Your task to perform on an android device: Open Android settings Image 0: 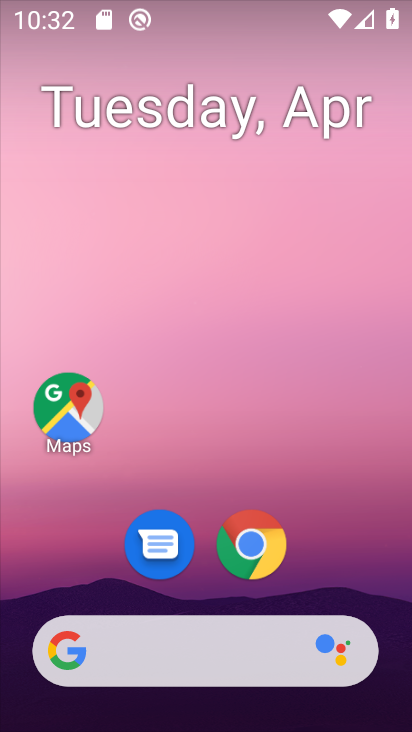
Step 0: drag from (334, 565) to (350, 140)
Your task to perform on an android device: Open Android settings Image 1: 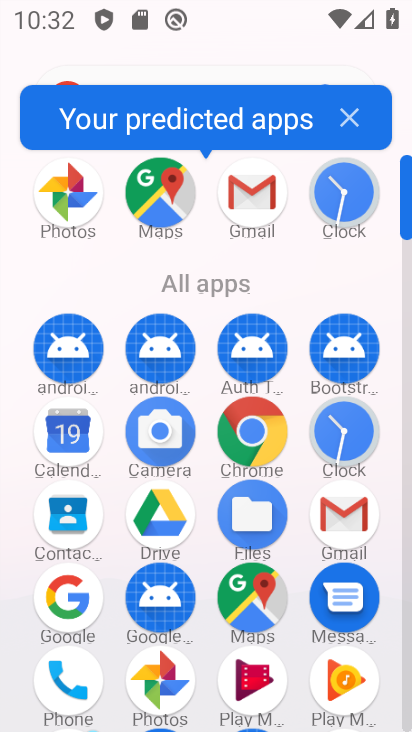
Step 1: drag from (295, 640) to (326, 251)
Your task to perform on an android device: Open Android settings Image 2: 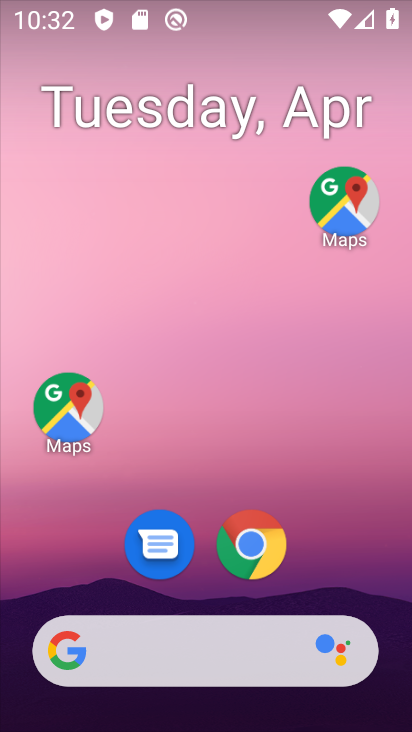
Step 2: drag from (316, 419) to (316, 143)
Your task to perform on an android device: Open Android settings Image 3: 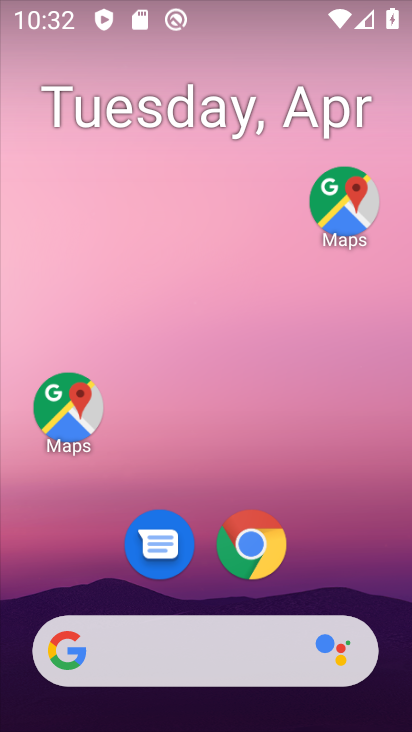
Step 3: drag from (302, 583) to (294, 145)
Your task to perform on an android device: Open Android settings Image 4: 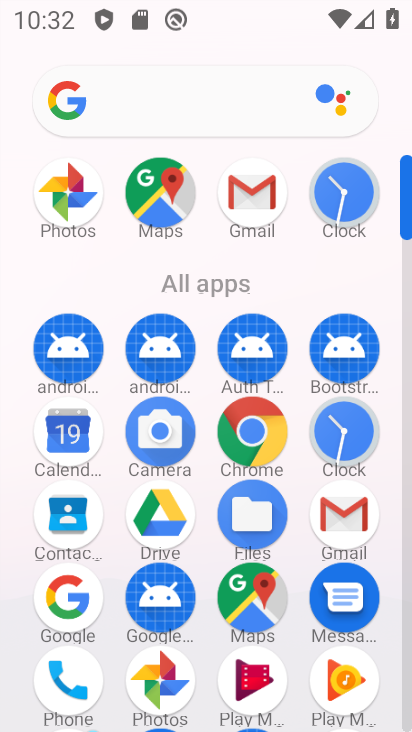
Step 4: drag from (308, 531) to (314, 179)
Your task to perform on an android device: Open Android settings Image 5: 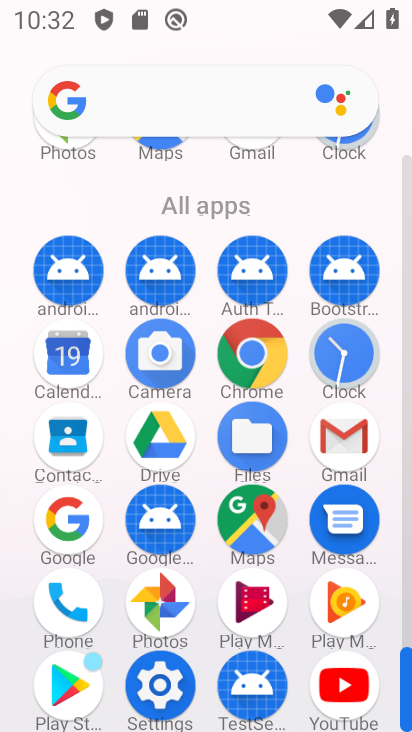
Step 5: click (161, 688)
Your task to perform on an android device: Open Android settings Image 6: 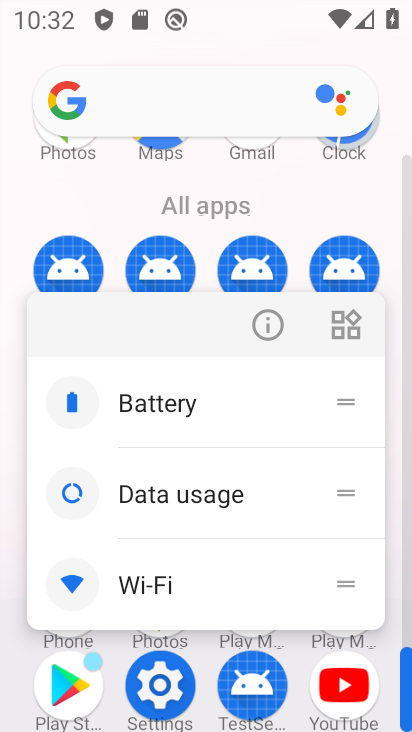
Step 6: click (165, 696)
Your task to perform on an android device: Open Android settings Image 7: 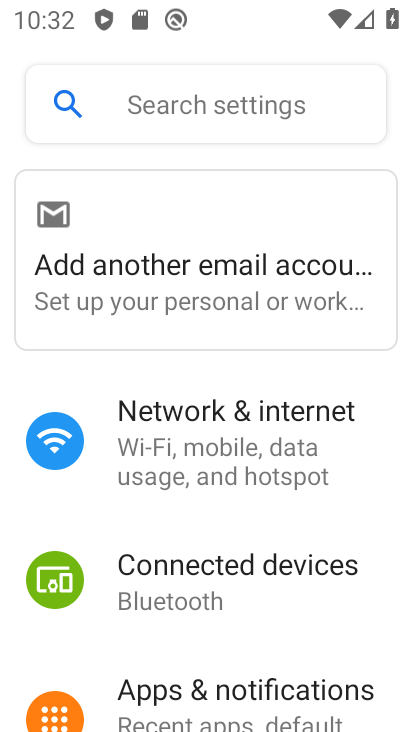
Step 7: drag from (266, 641) to (280, 250)
Your task to perform on an android device: Open Android settings Image 8: 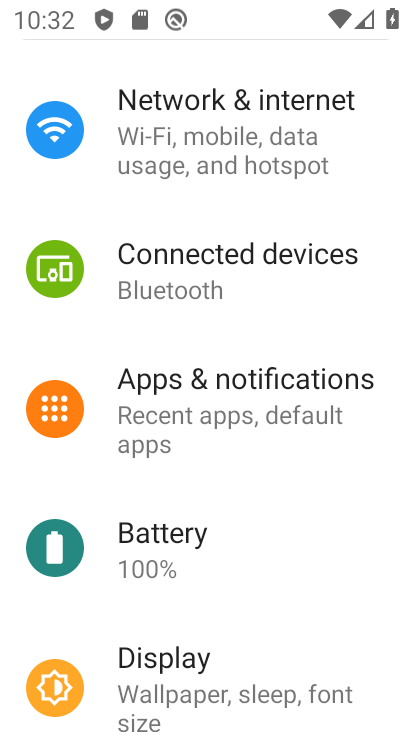
Step 8: drag from (261, 556) to (281, 216)
Your task to perform on an android device: Open Android settings Image 9: 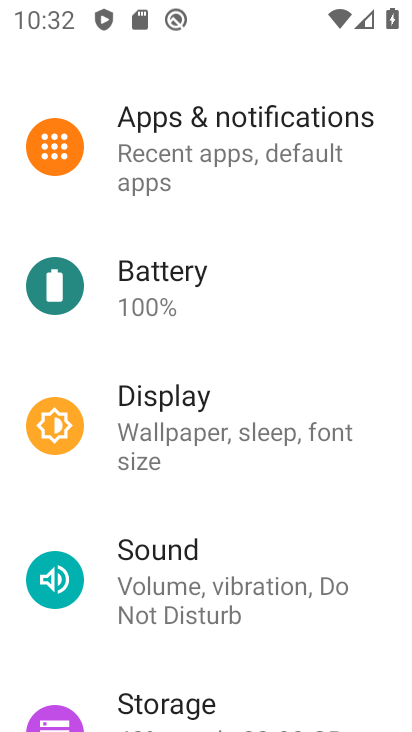
Step 9: drag from (243, 647) to (278, 218)
Your task to perform on an android device: Open Android settings Image 10: 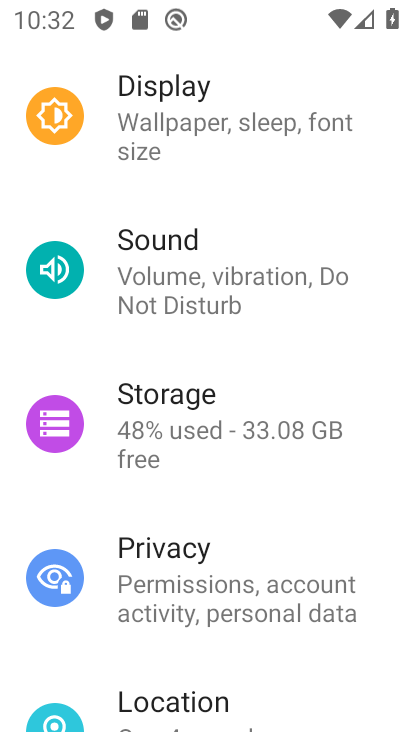
Step 10: drag from (274, 666) to (323, 210)
Your task to perform on an android device: Open Android settings Image 11: 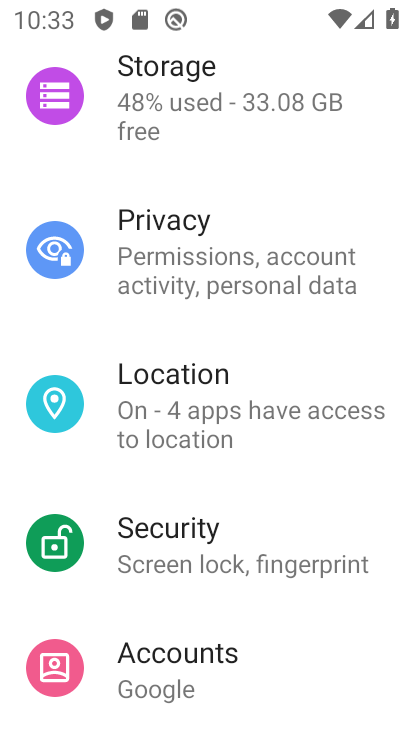
Step 11: drag from (312, 447) to (311, 172)
Your task to perform on an android device: Open Android settings Image 12: 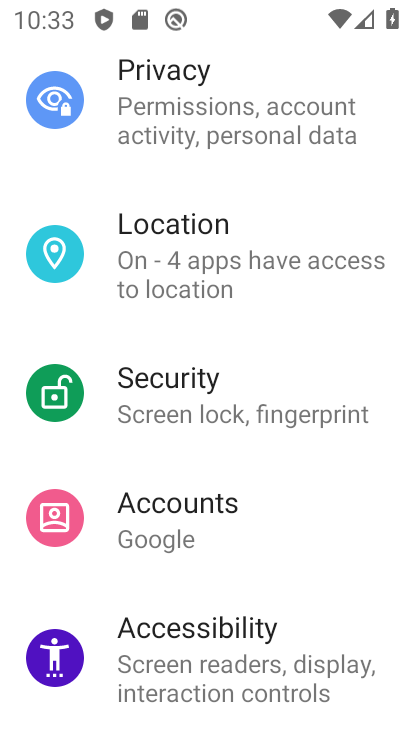
Step 12: drag from (194, 622) to (244, 212)
Your task to perform on an android device: Open Android settings Image 13: 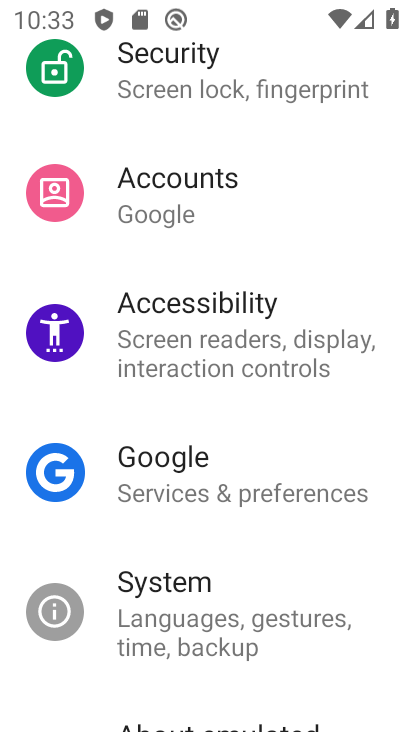
Step 13: drag from (340, 316) to (349, 254)
Your task to perform on an android device: Open Android settings Image 14: 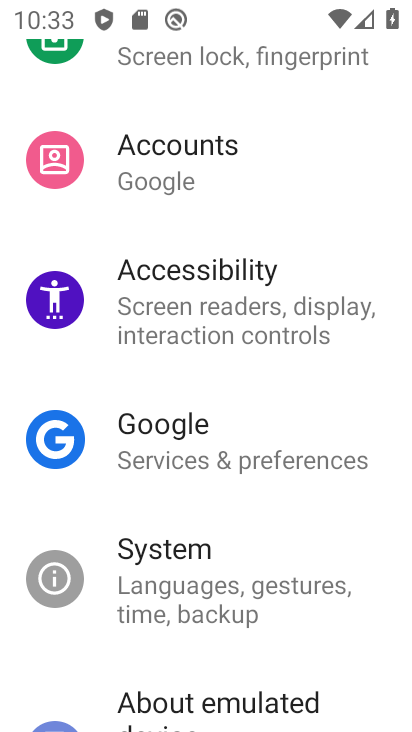
Step 14: click (264, 714)
Your task to perform on an android device: Open Android settings Image 15: 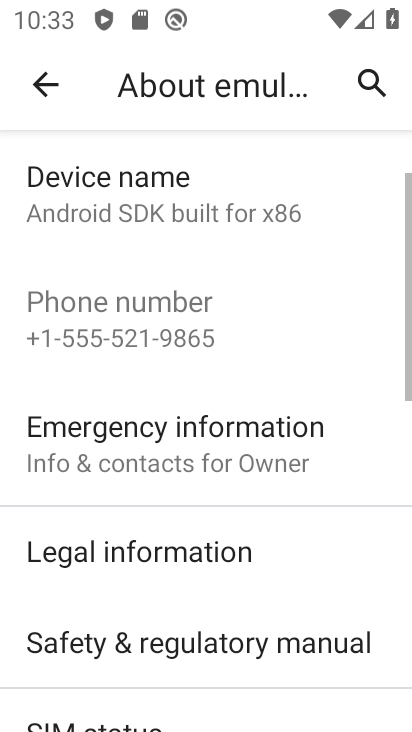
Step 15: task complete